Your task to perform on an android device: Open the clock Image 0: 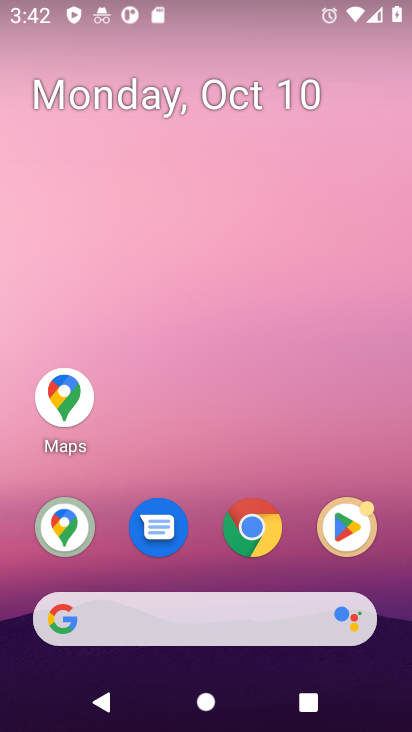
Step 0: drag from (185, 622) to (223, 152)
Your task to perform on an android device: Open the clock Image 1: 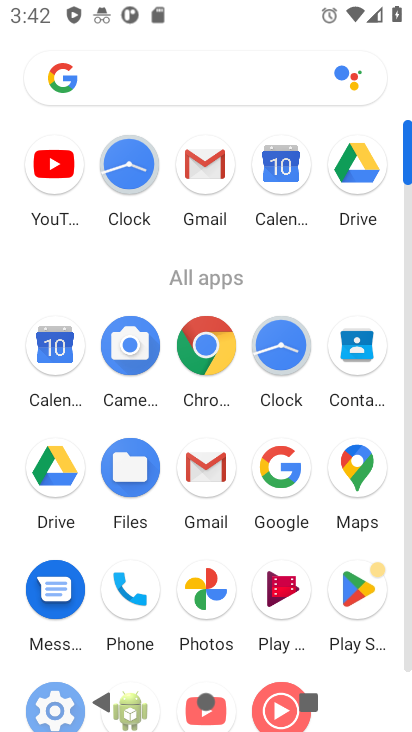
Step 1: click (129, 168)
Your task to perform on an android device: Open the clock Image 2: 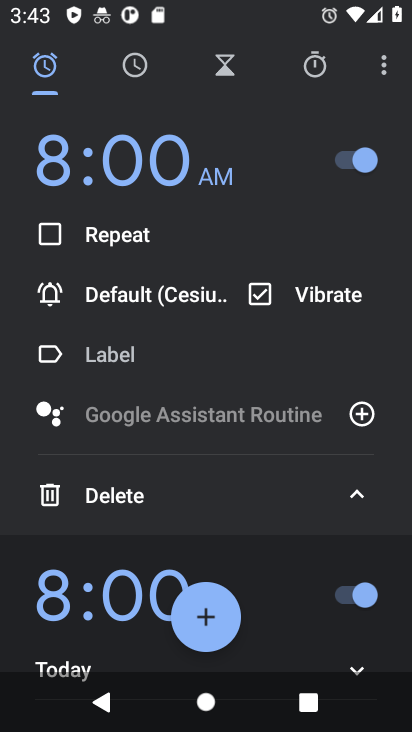
Step 2: task complete